Your task to perform on an android device: Open display settings Image 0: 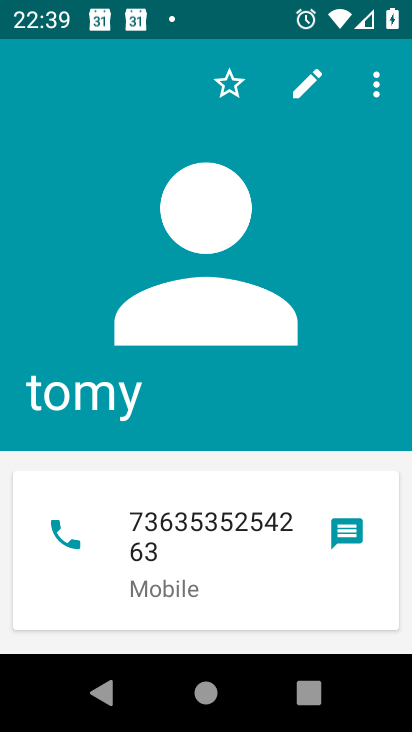
Step 0: press home button
Your task to perform on an android device: Open display settings Image 1: 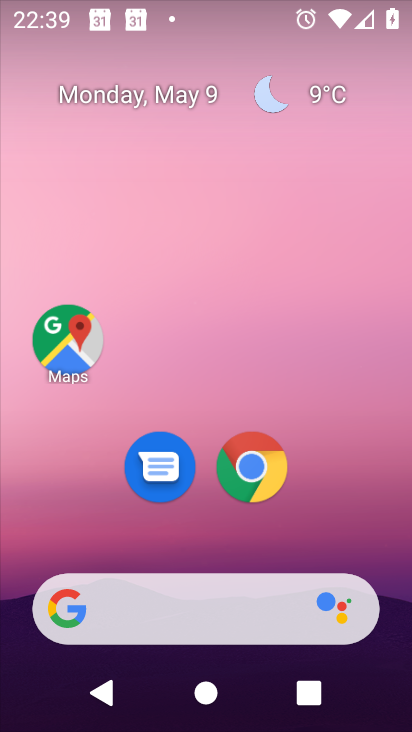
Step 1: drag from (386, 564) to (353, 1)
Your task to perform on an android device: Open display settings Image 2: 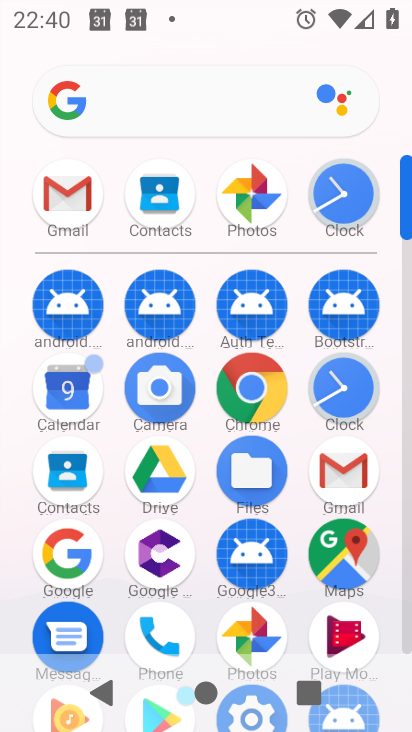
Step 2: click (406, 424)
Your task to perform on an android device: Open display settings Image 3: 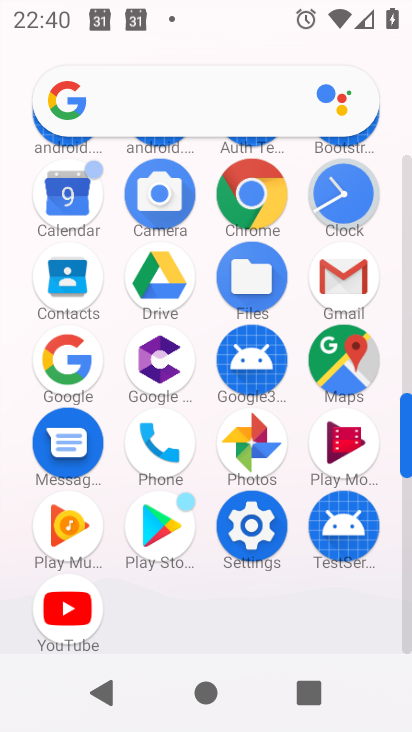
Step 3: click (264, 527)
Your task to perform on an android device: Open display settings Image 4: 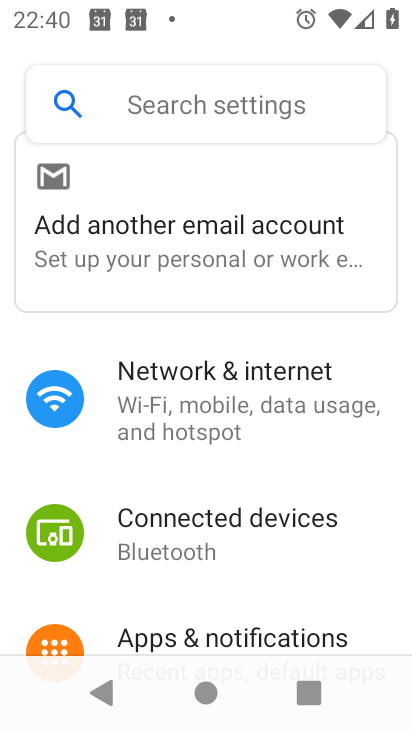
Step 4: drag from (262, 558) to (239, 276)
Your task to perform on an android device: Open display settings Image 5: 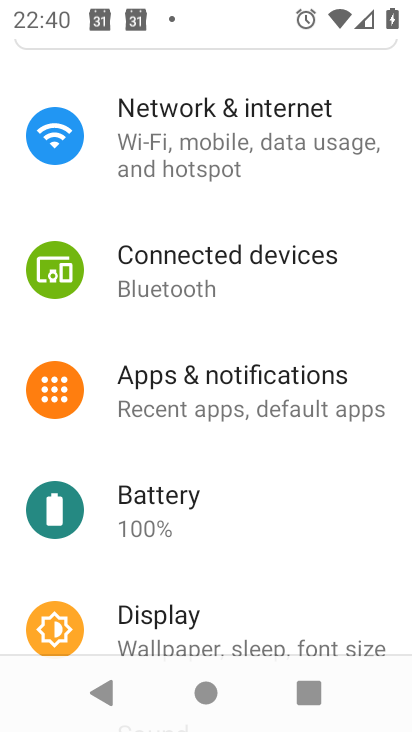
Step 5: drag from (275, 561) to (258, 277)
Your task to perform on an android device: Open display settings Image 6: 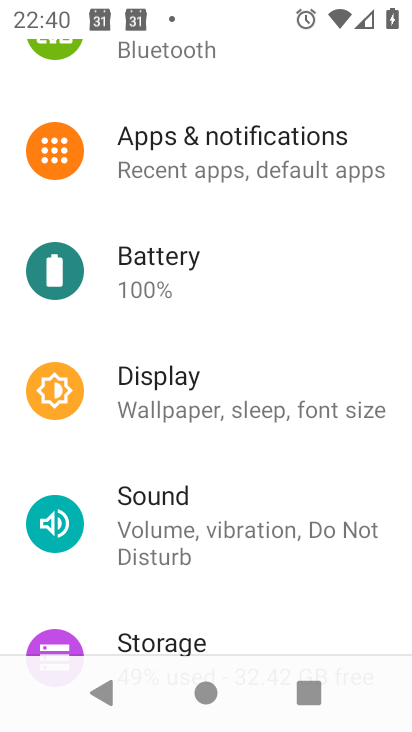
Step 6: click (162, 396)
Your task to perform on an android device: Open display settings Image 7: 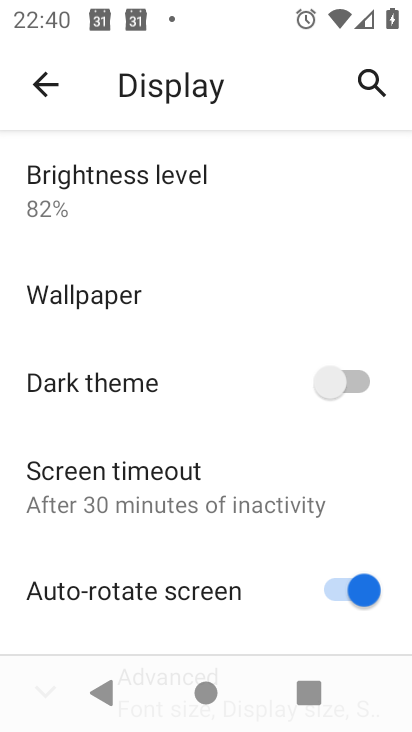
Step 7: task complete